Your task to perform on an android device: turn notification dots off Image 0: 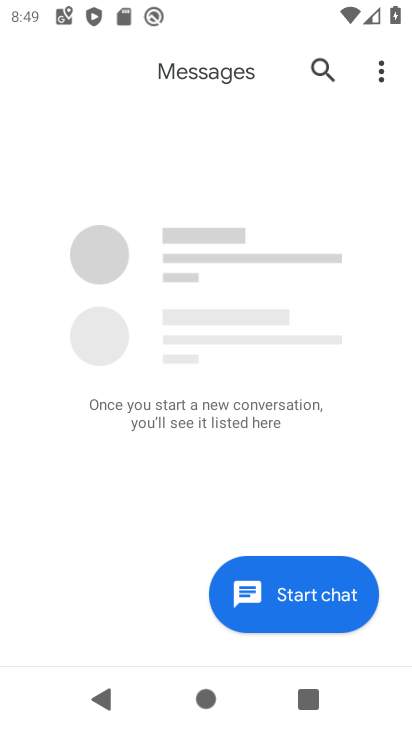
Step 0: press home button
Your task to perform on an android device: turn notification dots off Image 1: 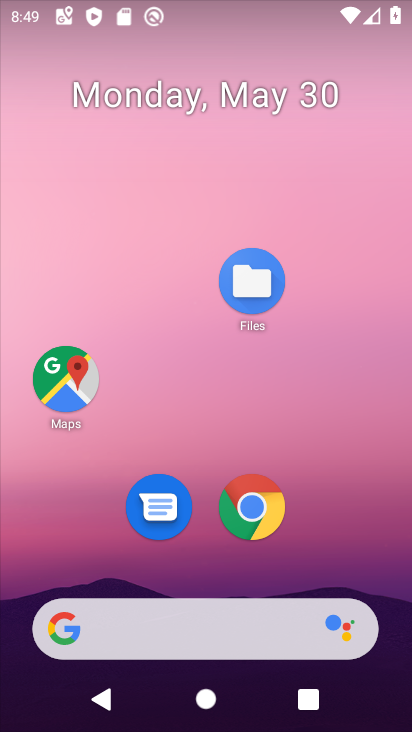
Step 1: drag from (178, 574) to (203, 0)
Your task to perform on an android device: turn notification dots off Image 2: 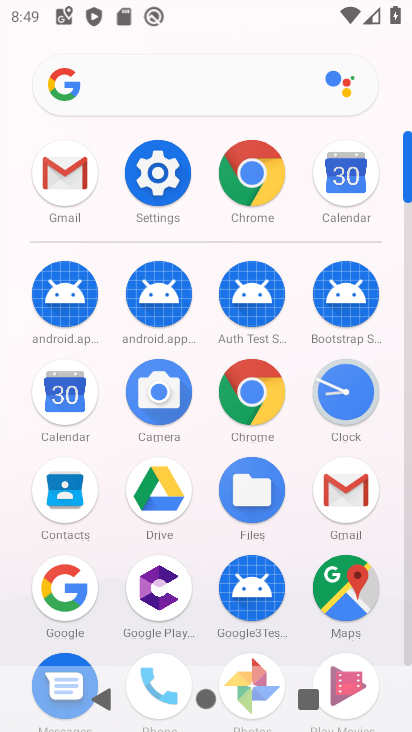
Step 2: click (151, 159)
Your task to perform on an android device: turn notification dots off Image 3: 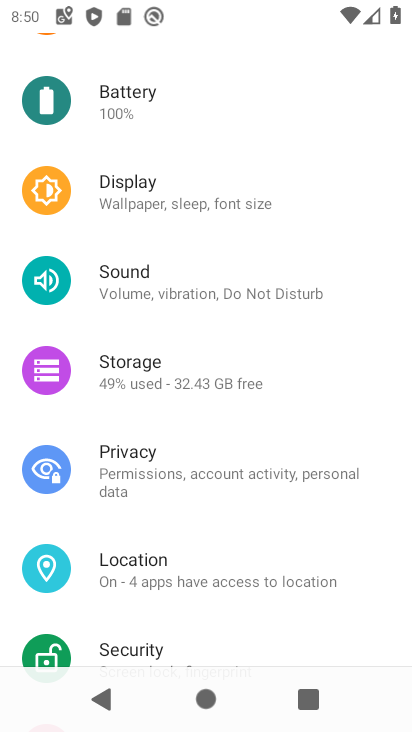
Step 3: drag from (183, 563) to (169, 616)
Your task to perform on an android device: turn notification dots off Image 4: 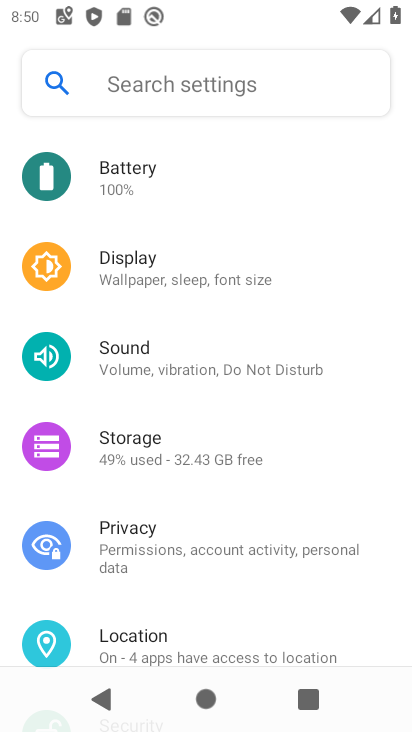
Step 4: drag from (203, 353) to (178, 596)
Your task to perform on an android device: turn notification dots off Image 5: 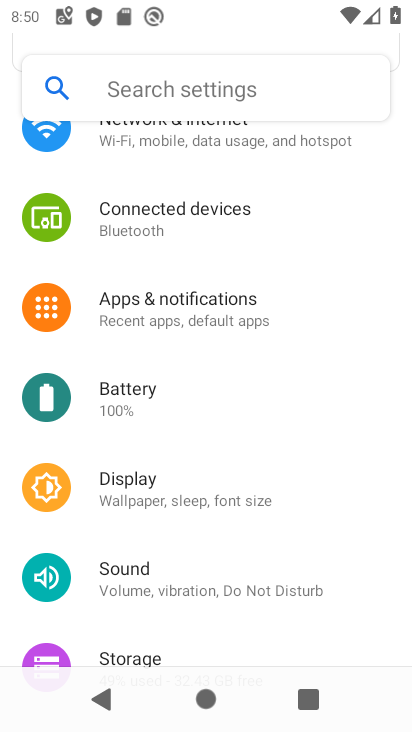
Step 5: click (182, 302)
Your task to perform on an android device: turn notification dots off Image 6: 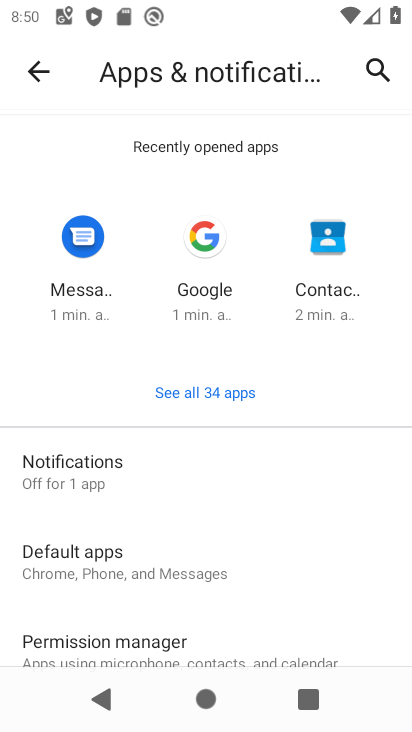
Step 6: click (127, 466)
Your task to perform on an android device: turn notification dots off Image 7: 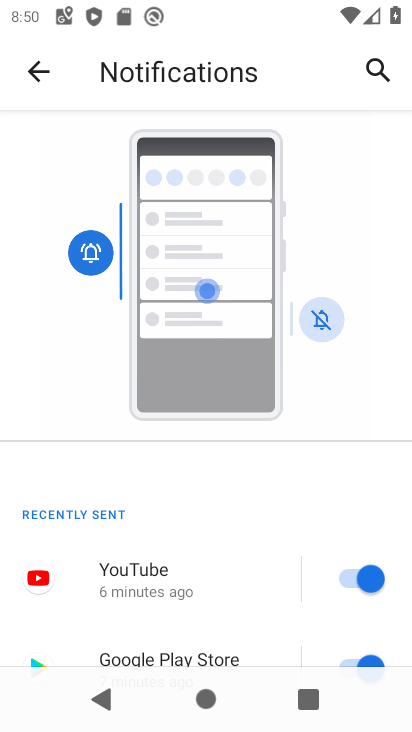
Step 7: drag from (127, 573) to (157, 428)
Your task to perform on an android device: turn notification dots off Image 8: 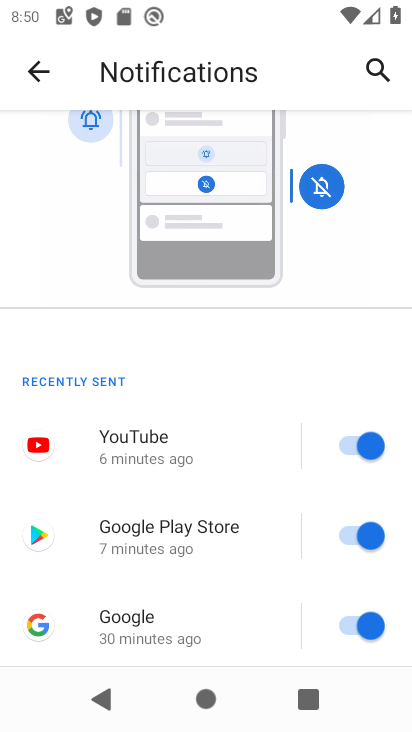
Step 8: drag from (153, 606) to (221, 366)
Your task to perform on an android device: turn notification dots off Image 9: 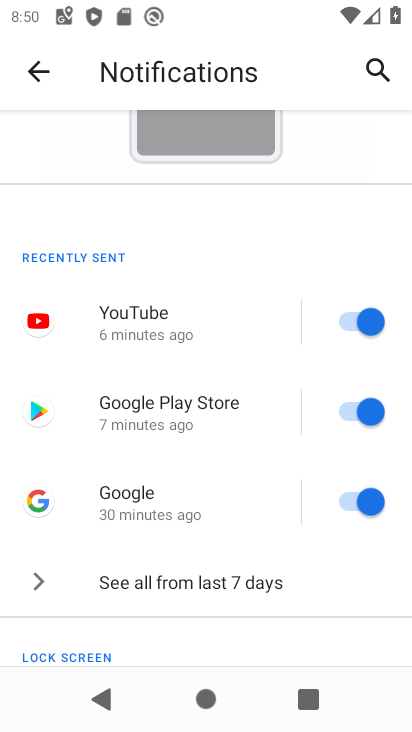
Step 9: drag from (178, 573) to (168, 1)
Your task to perform on an android device: turn notification dots off Image 10: 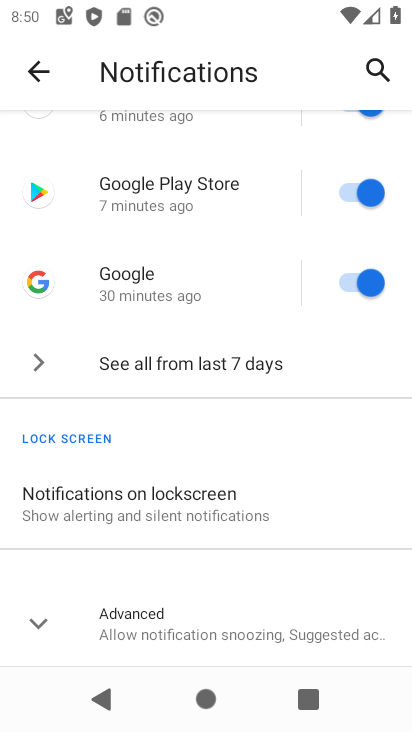
Step 10: click (153, 626)
Your task to perform on an android device: turn notification dots off Image 11: 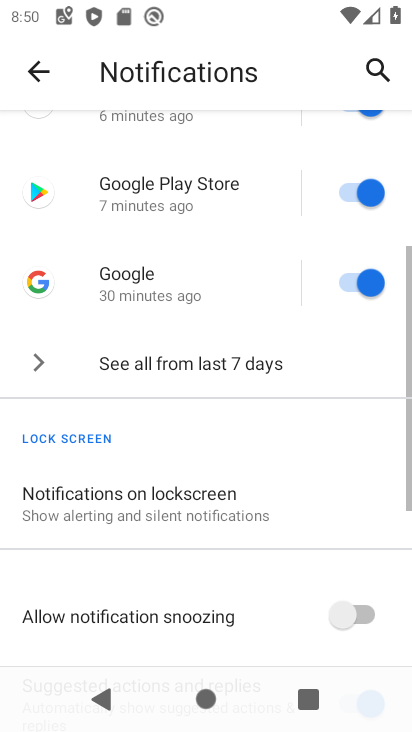
Step 11: drag from (204, 625) to (297, 45)
Your task to perform on an android device: turn notification dots off Image 12: 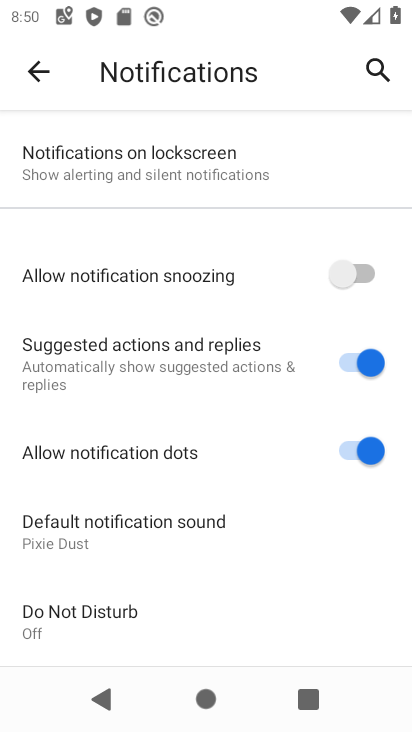
Step 12: click (342, 450)
Your task to perform on an android device: turn notification dots off Image 13: 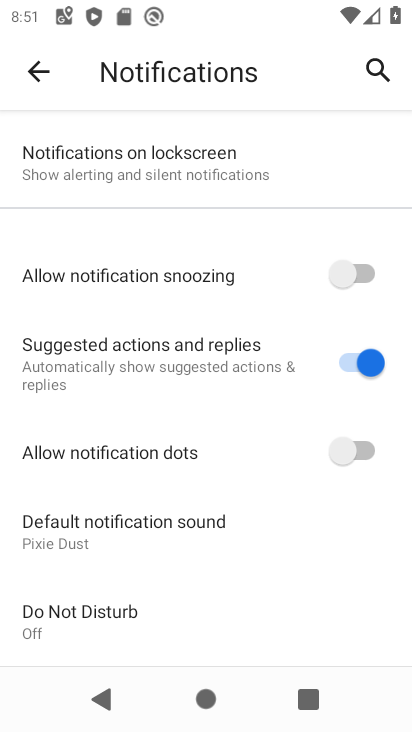
Step 13: task complete